Your task to perform on an android device: Do I have any events today? Image 0: 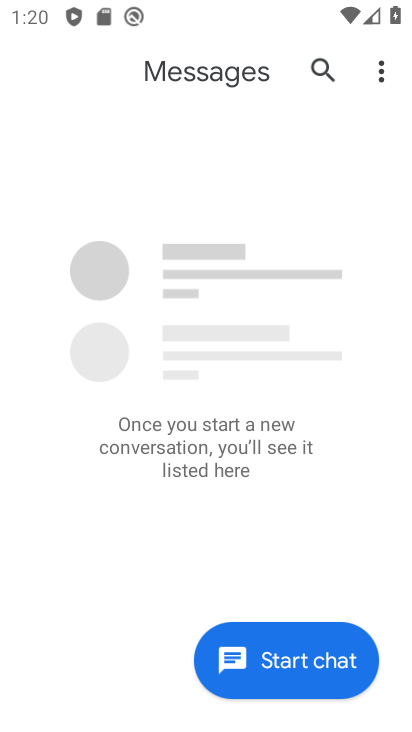
Step 0: press home button
Your task to perform on an android device: Do I have any events today? Image 1: 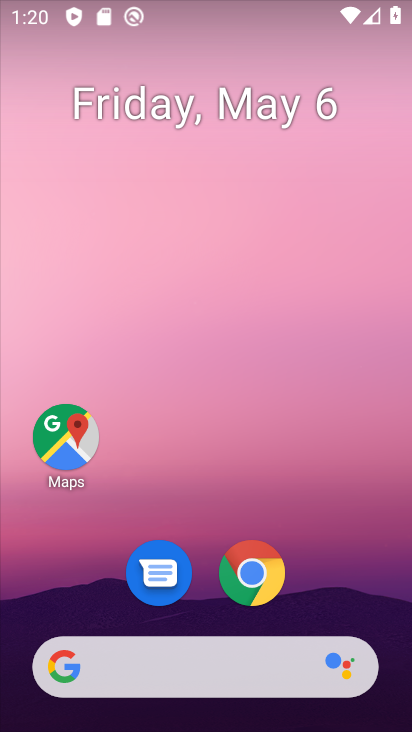
Step 1: drag from (205, 622) to (156, 42)
Your task to perform on an android device: Do I have any events today? Image 2: 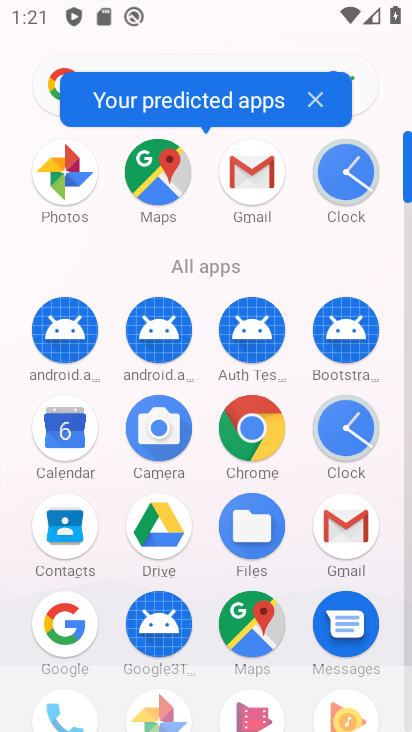
Step 2: click (63, 445)
Your task to perform on an android device: Do I have any events today? Image 3: 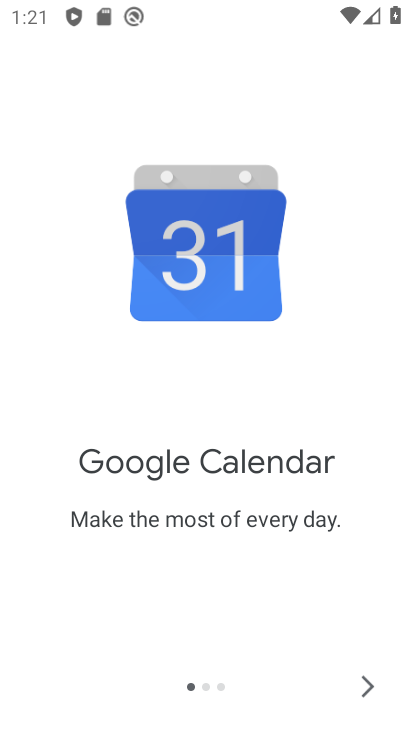
Step 3: click (365, 690)
Your task to perform on an android device: Do I have any events today? Image 4: 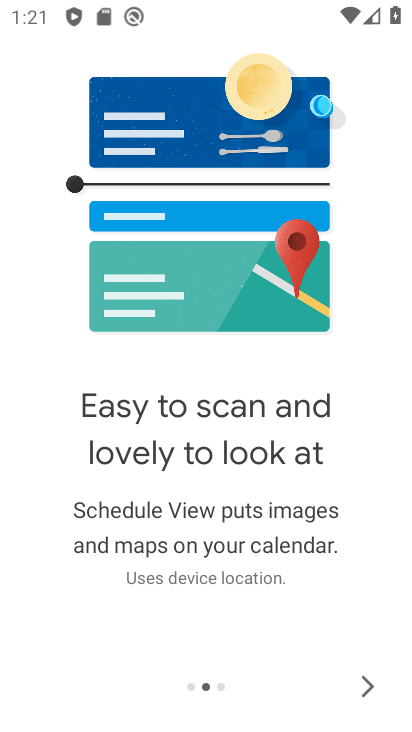
Step 4: click (365, 690)
Your task to perform on an android device: Do I have any events today? Image 5: 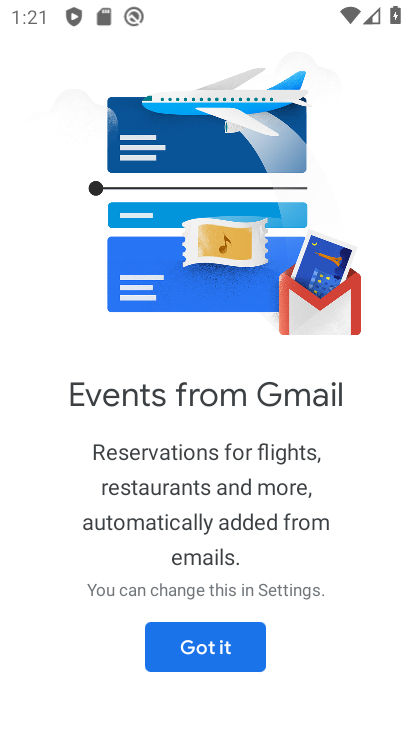
Step 5: click (238, 649)
Your task to perform on an android device: Do I have any events today? Image 6: 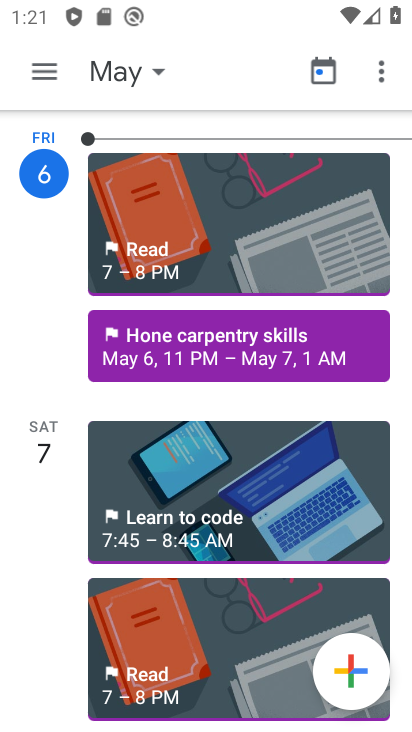
Step 6: click (200, 326)
Your task to perform on an android device: Do I have any events today? Image 7: 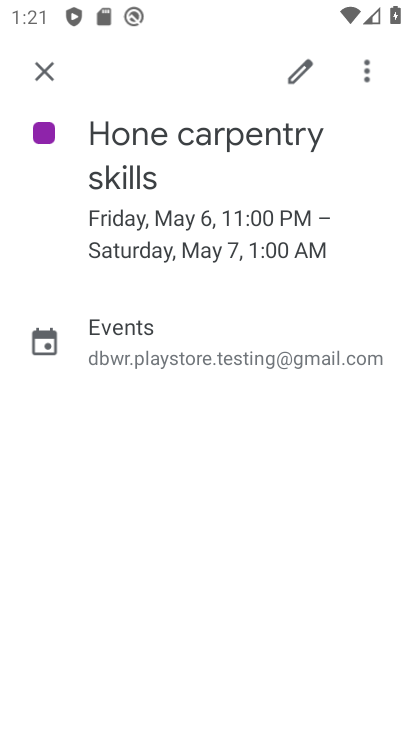
Step 7: task complete